Your task to perform on an android device: Do I have any events this weekend? Image 0: 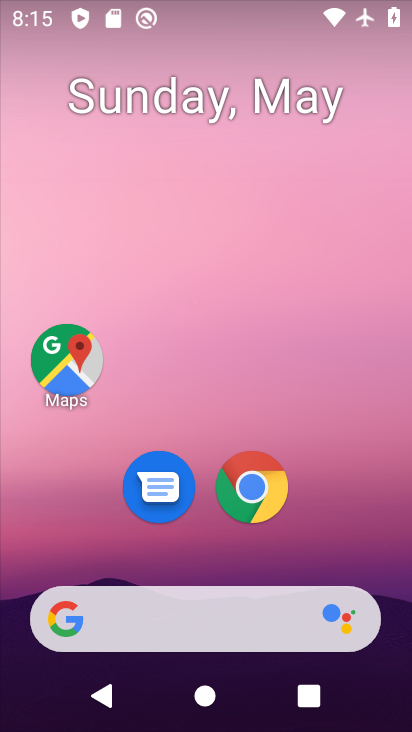
Step 0: drag from (245, 452) to (294, 145)
Your task to perform on an android device: Do I have any events this weekend? Image 1: 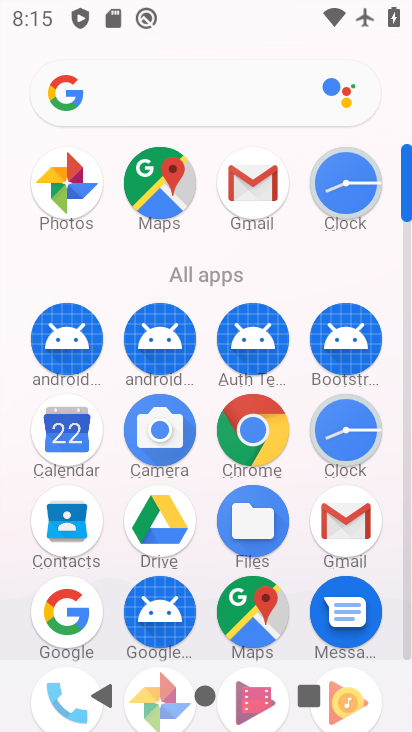
Step 1: click (70, 437)
Your task to perform on an android device: Do I have any events this weekend? Image 2: 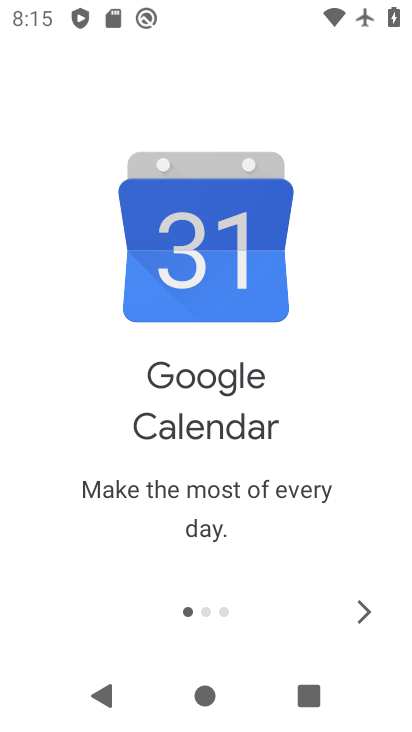
Step 2: click (365, 611)
Your task to perform on an android device: Do I have any events this weekend? Image 3: 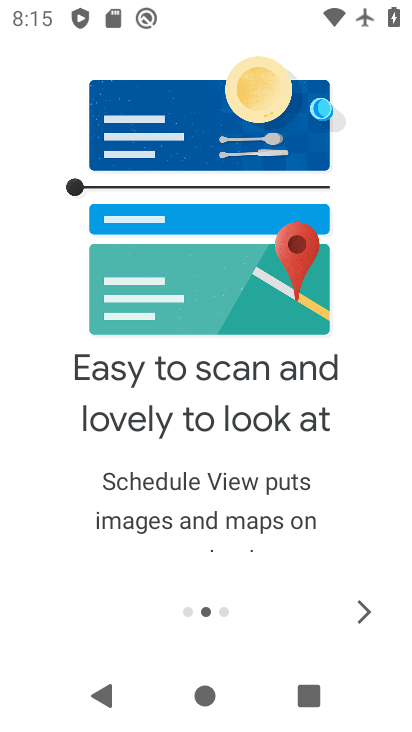
Step 3: click (371, 597)
Your task to perform on an android device: Do I have any events this weekend? Image 4: 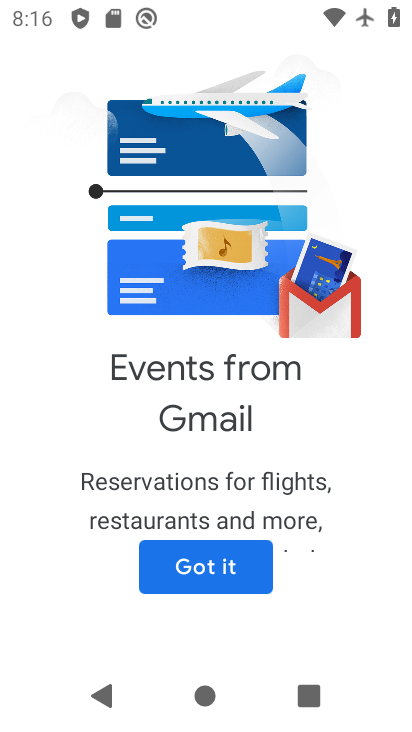
Step 4: click (209, 556)
Your task to perform on an android device: Do I have any events this weekend? Image 5: 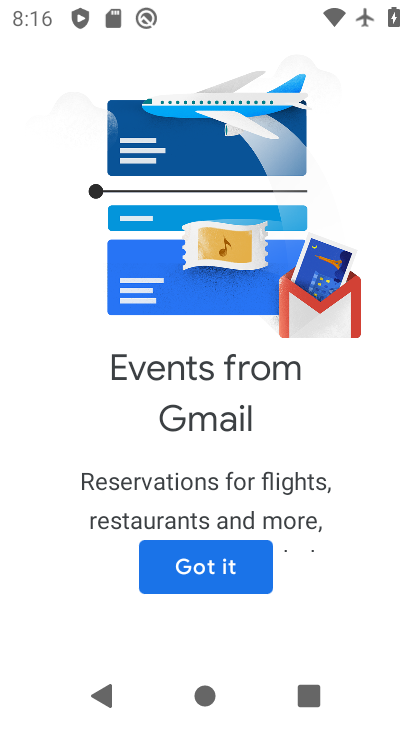
Step 5: click (207, 571)
Your task to perform on an android device: Do I have any events this weekend? Image 6: 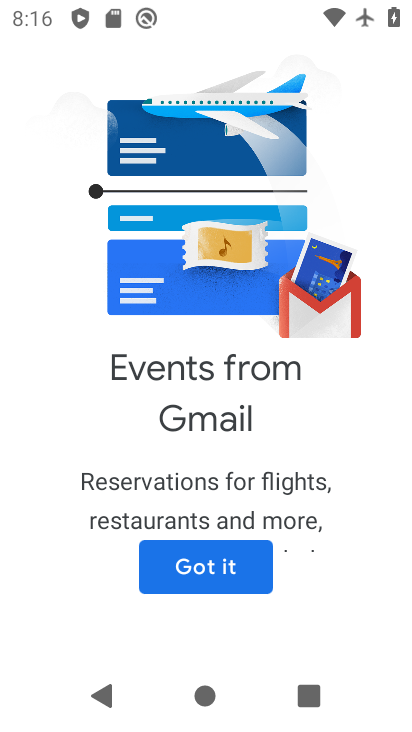
Step 6: click (306, 34)
Your task to perform on an android device: Do I have any events this weekend? Image 7: 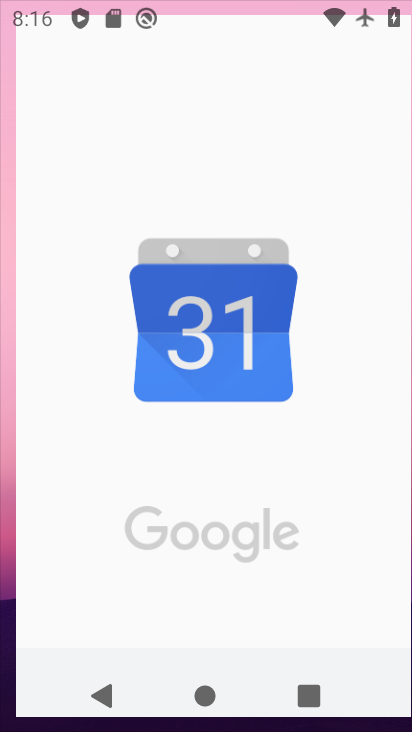
Step 7: click (202, 615)
Your task to perform on an android device: Do I have any events this weekend? Image 8: 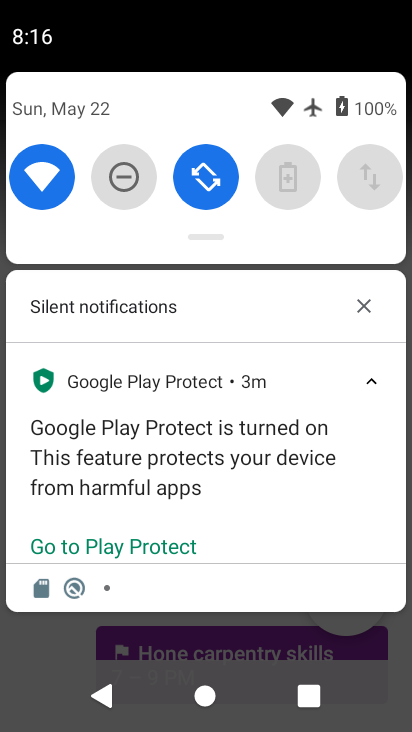
Step 8: click (176, 633)
Your task to perform on an android device: Do I have any events this weekend? Image 9: 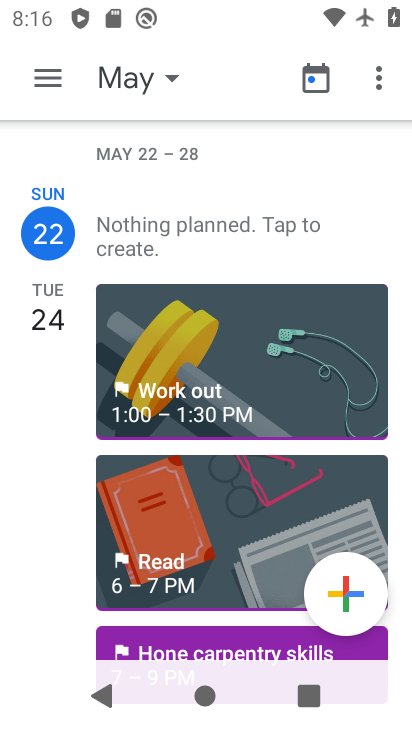
Step 9: drag from (196, 547) to (307, 97)
Your task to perform on an android device: Do I have any events this weekend? Image 10: 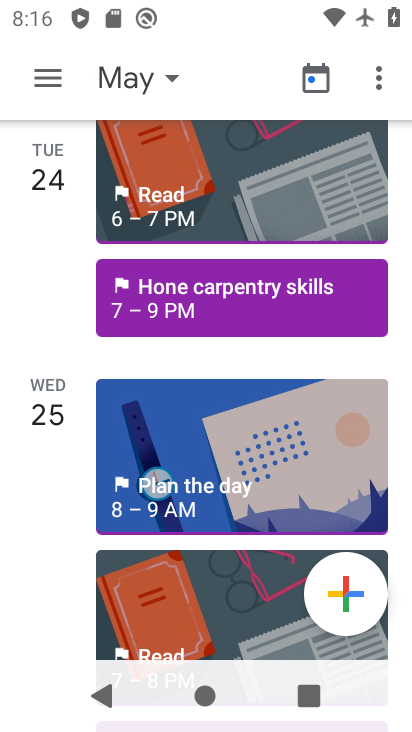
Step 10: drag from (176, 651) to (252, 120)
Your task to perform on an android device: Do I have any events this weekend? Image 11: 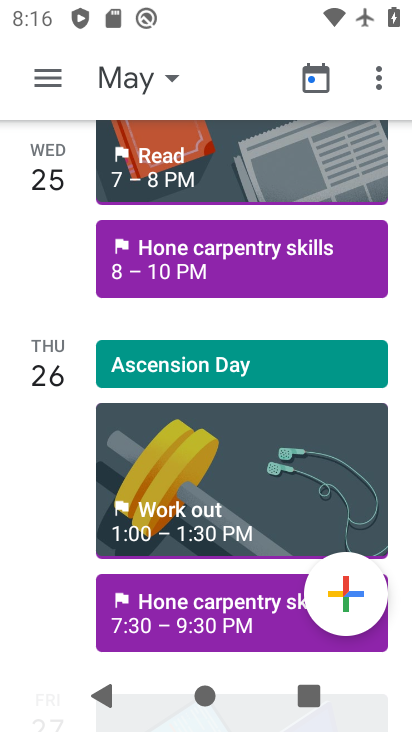
Step 11: drag from (155, 599) to (279, 35)
Your task to perform on an android device: Do I have any events this weekend? Image 12: 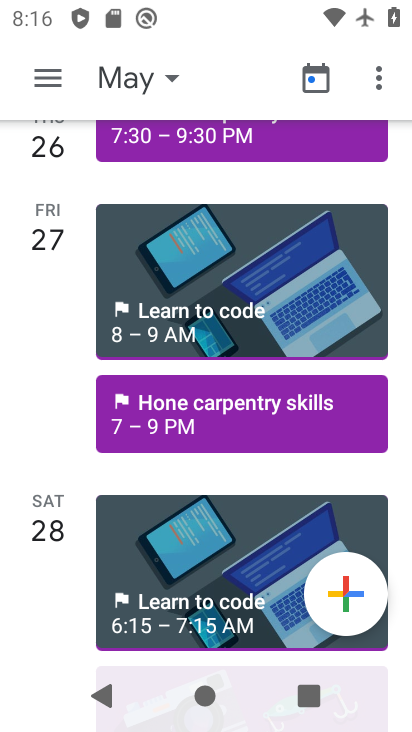
Step 12: drag from (144, 498) to (205, 208)
Your task to perform on an android device: Do I have any events this weekend? Image 13: 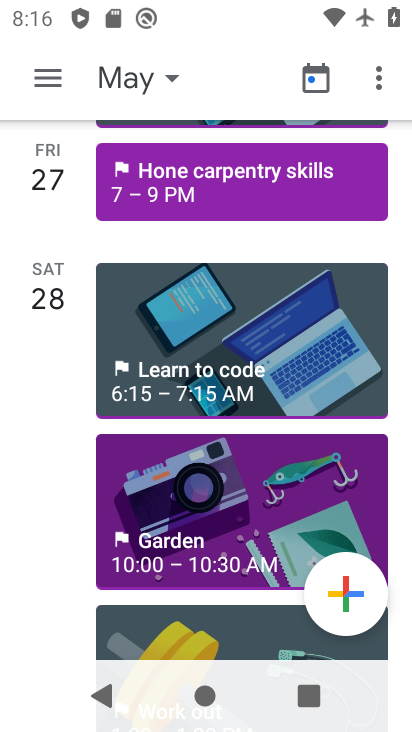
Step 13: drag from (183, 492) to (297, 12)
Your task to perform on an android device: Do I have any events this weekend? Image 14: 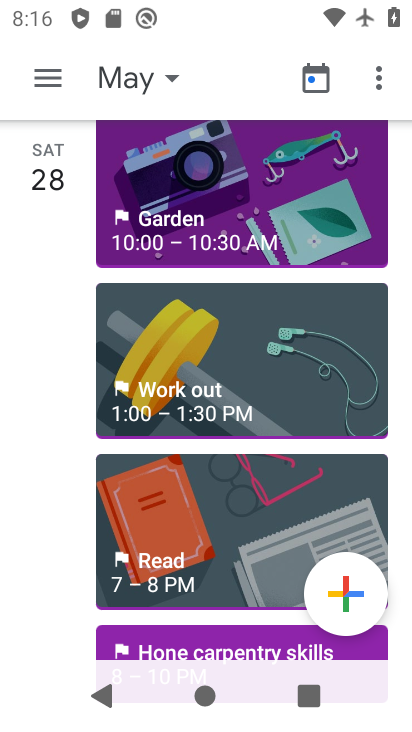
Step 14: drag from (217, 572) to (329, 6)
Your task to perform on an android device: Do I have any events this weekend? Image 15: 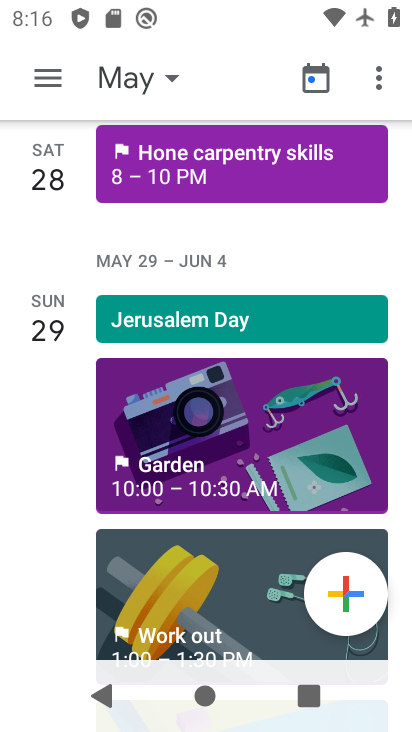
Step 15: drag from (224, 314) to (194, 501)
Your task to perform on an android device: Do I have any events this weekend? Image 16: 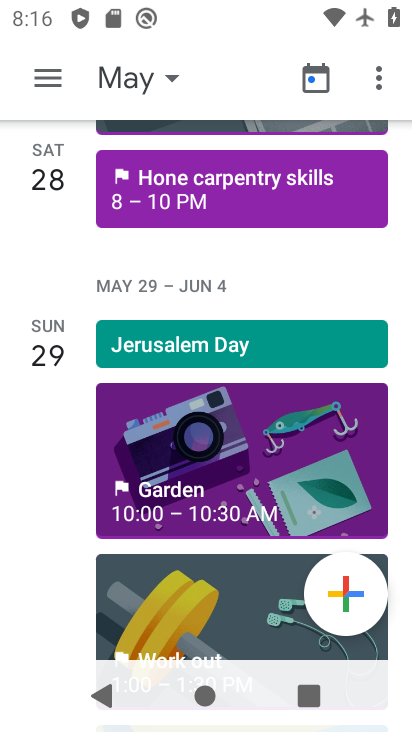
Step 16: click (166, 334)
Your task to perform on an android device: Do I have any events this weekend? Image 17: 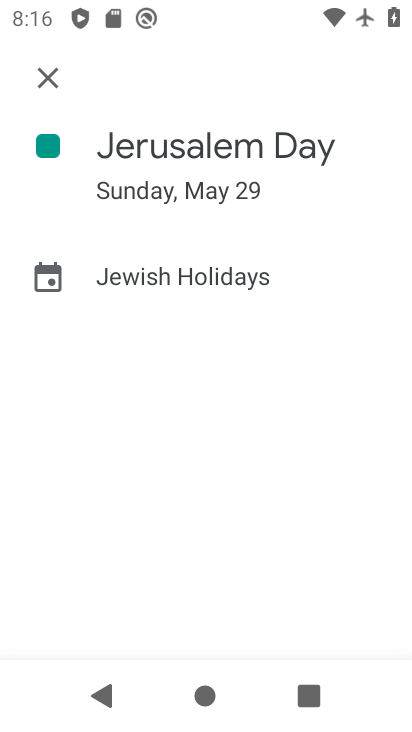
Step 17: task complete